Your task to perform on an android device: turn on wifi Image 0: 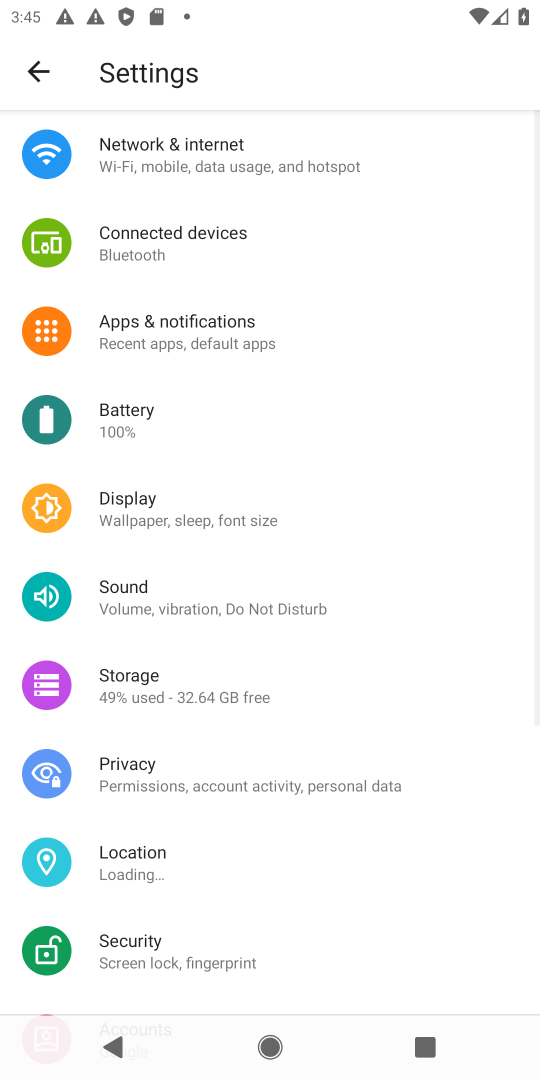
Step 0: press home button
Your task to perform on an android device: turn on wifi Image 1: 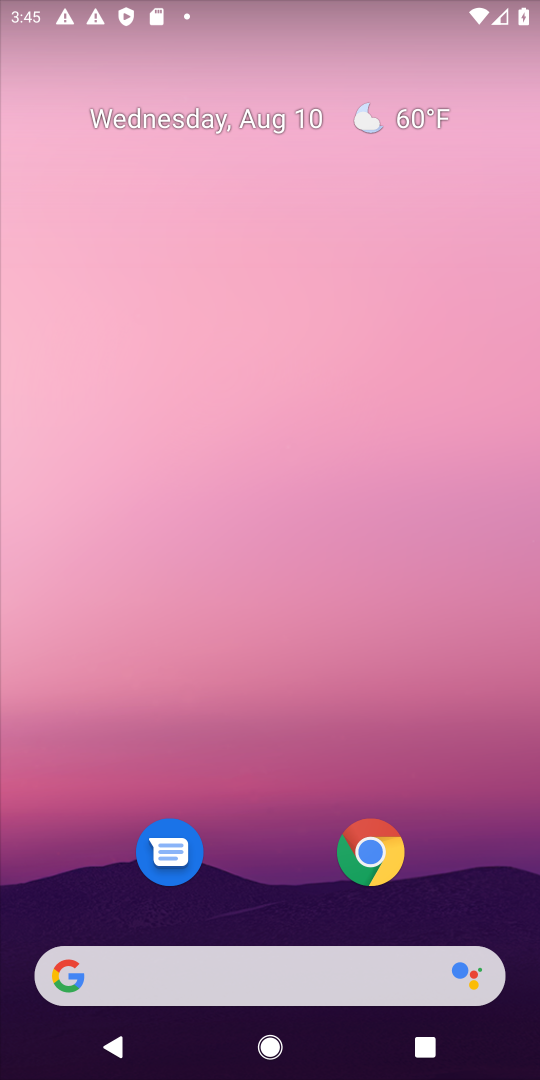
Step 1: drag from (289, 518) to (354, 91)
Your task to perform on an android device: turn on wifi Image 2: 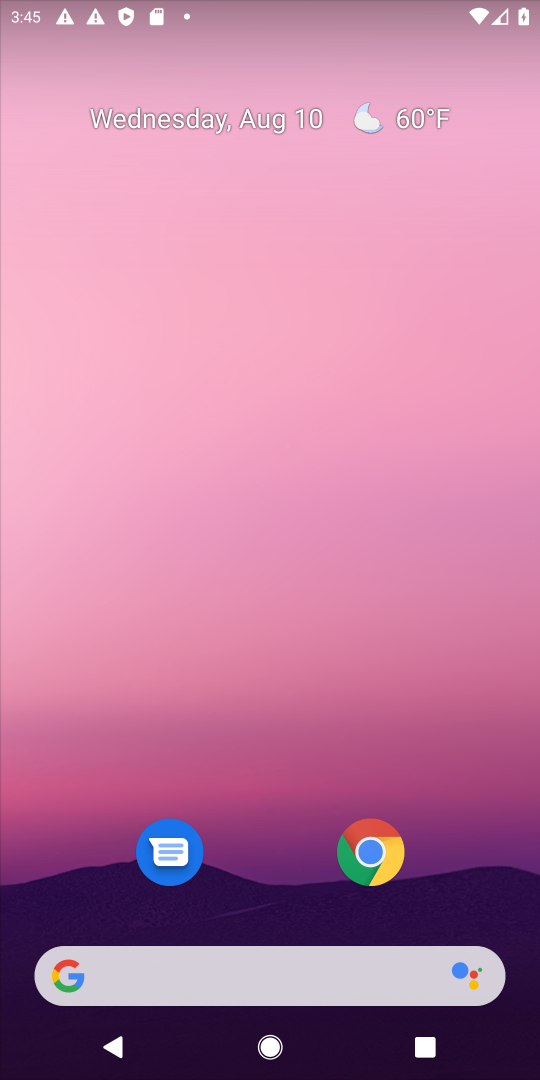
Step 2: drag from (226, 782) to (363, 91)
Your task to perform on an android device: turn on wifi Image 3: 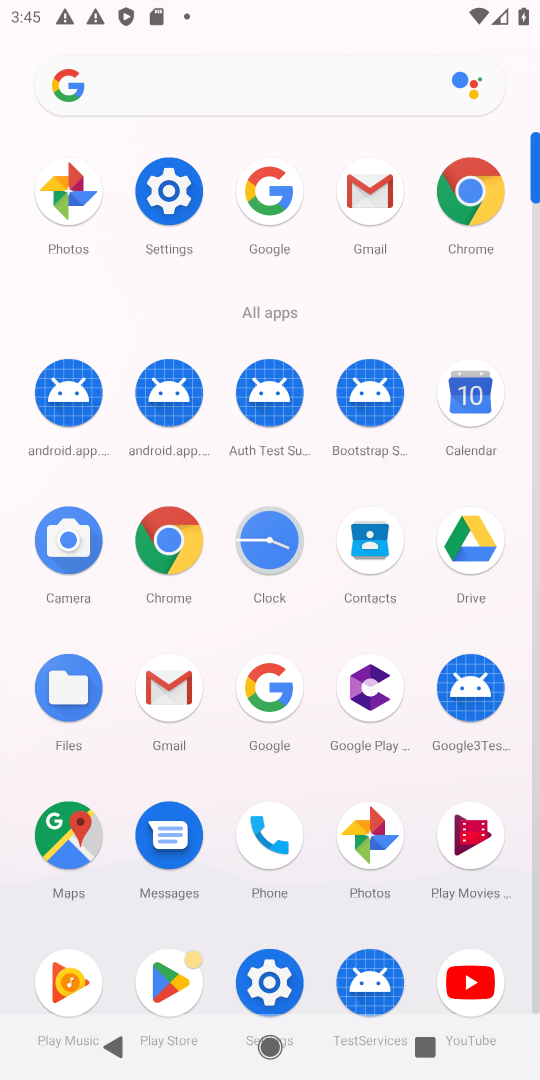
Step 3: click (168, 175)
Your task to perform on an android device: turn on wifi Image 4: 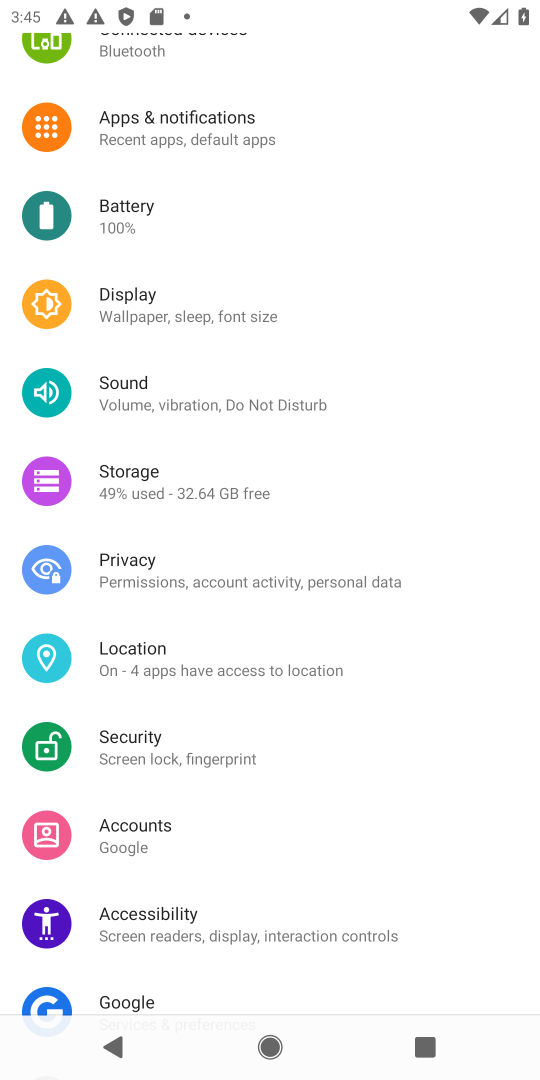
Step 4: drag from (193, 115) to (250, 688)
Your task to perform on an android device: turn on wifi Image 5: 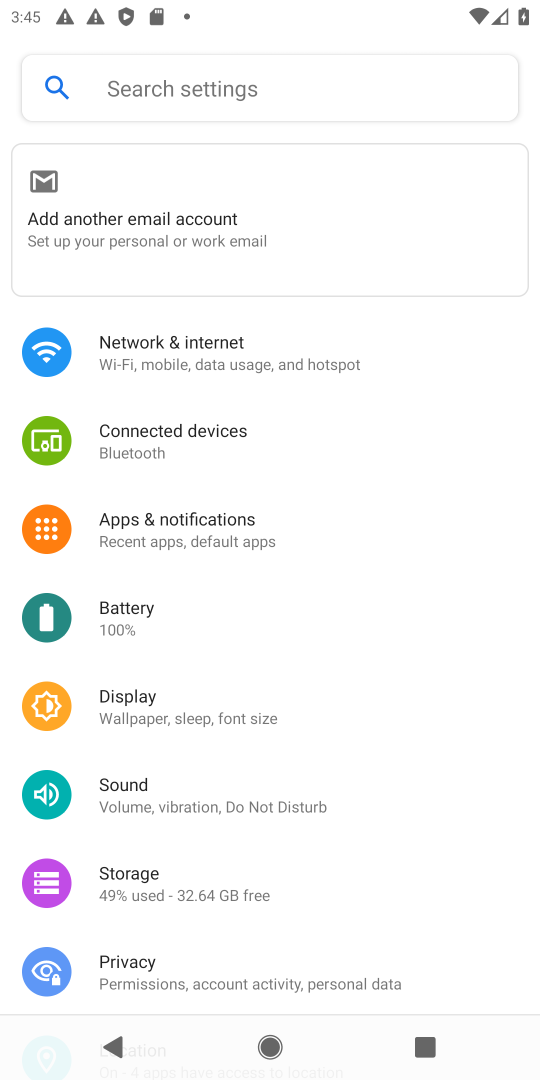
Step 5: click (161, 365)
Your task to perform on an android device: turn on wifi Image 6: 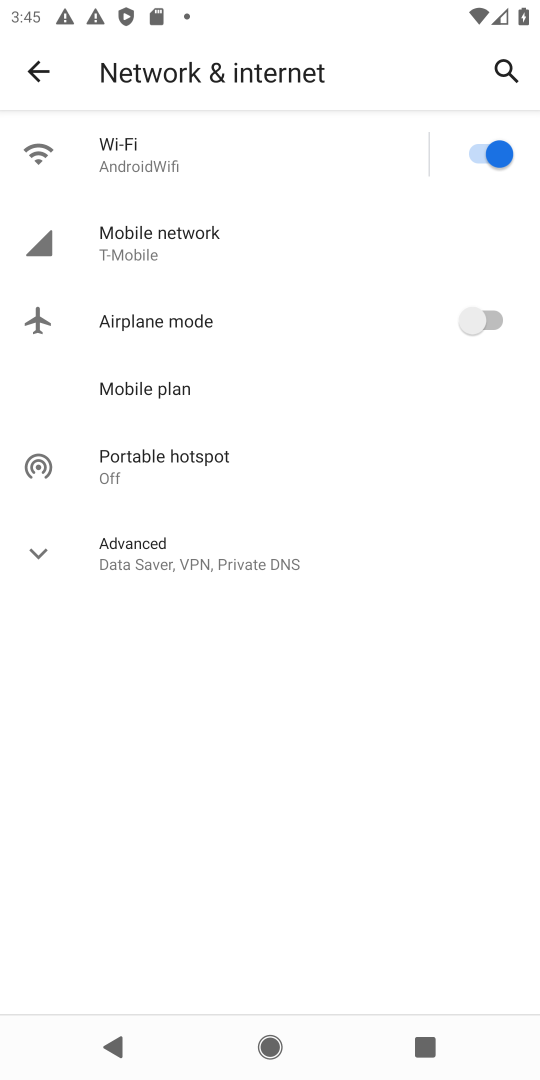
Step 6: task complete